Your task to perform on an android device: Go to accessibility settings Image 0: 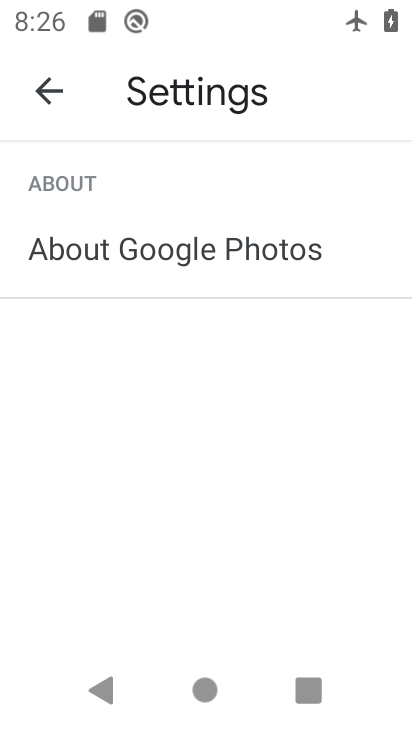
Step 0: press home button
Your task to perform on an android device: Go to accessibility settings Image 1: 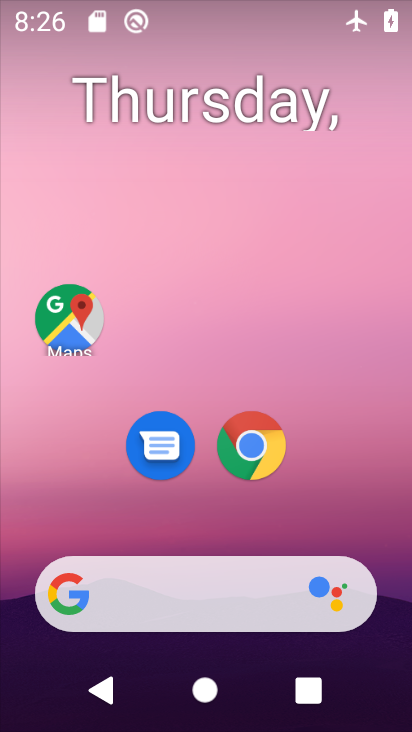
Step 1: drag from (301, 502) to (314, 110)
Your task to perform on an android device: Go to accessibility settings Image 2: 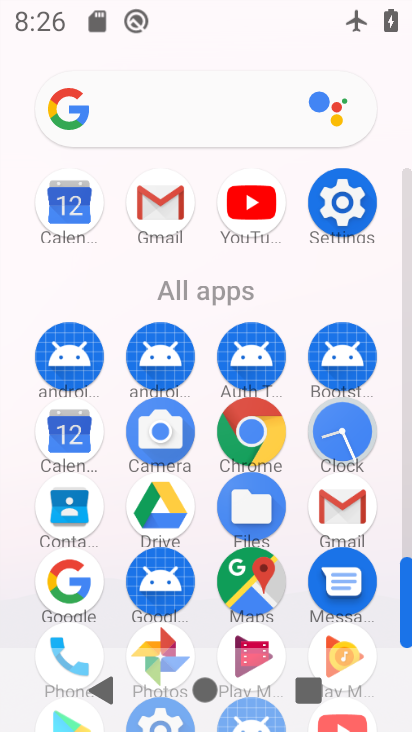
Step 2: click (325, 198)
Your task to perform on an android device: Go to accessibility settings Image 3: 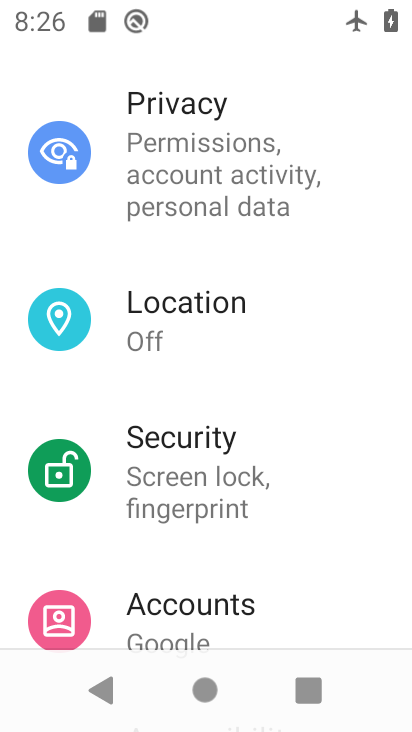
Step 3: drag from (312, 567) to (320, 129)
Your task to perform on an android device: Go to accessibility settings Image 4: 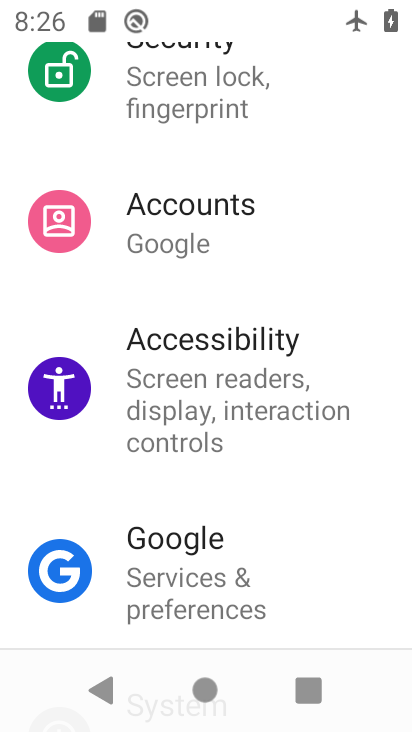
Step 4: click (224, 374)
Your task to perform on an android device: Go to accessibility settings Image 5: 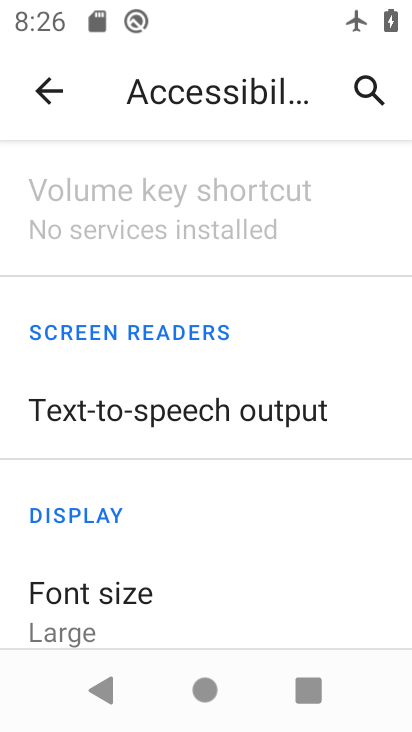
Step 5: task complete